Your task to perform on an android device: Show me the alarms in the clock app Image 0: 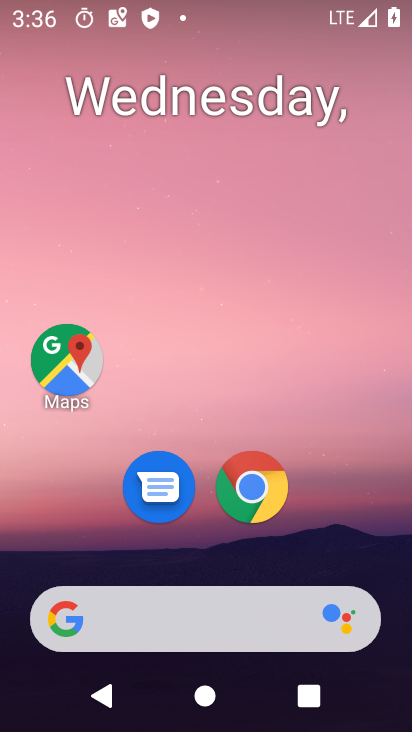
Step 0: drag from (279, 579) to (291, 133)
Your task to perform on an android device: Show me the alarms in the clock app Image 1: 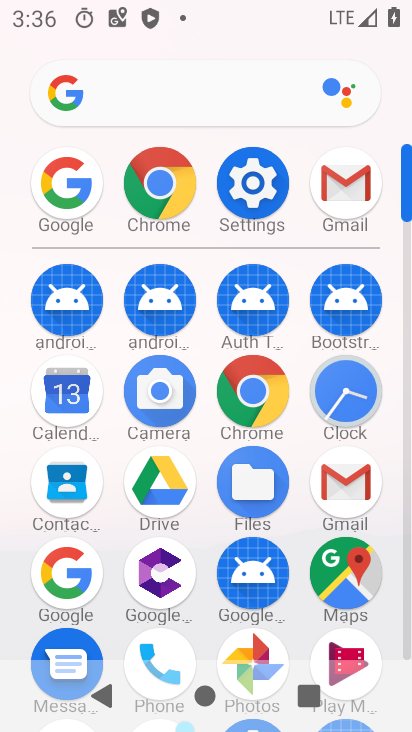
Step 1: click (351, 420)
Your task to perform on an android device: Show me the alarms in the clock app Image 2: 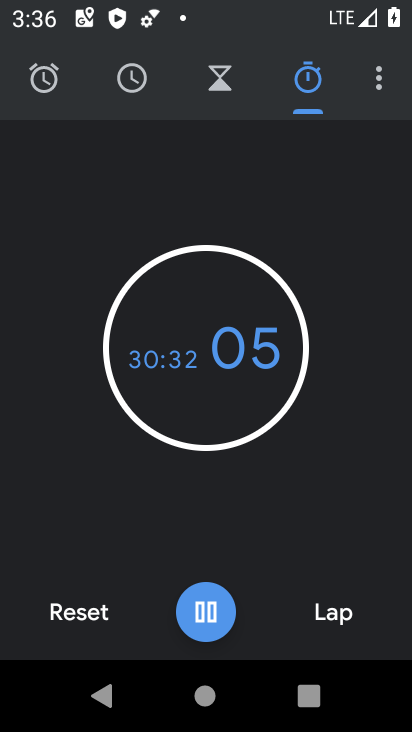
Step 2: click (54, 101)
Your task to perform on an android device: Show me the alarms in the clock app Image 3: 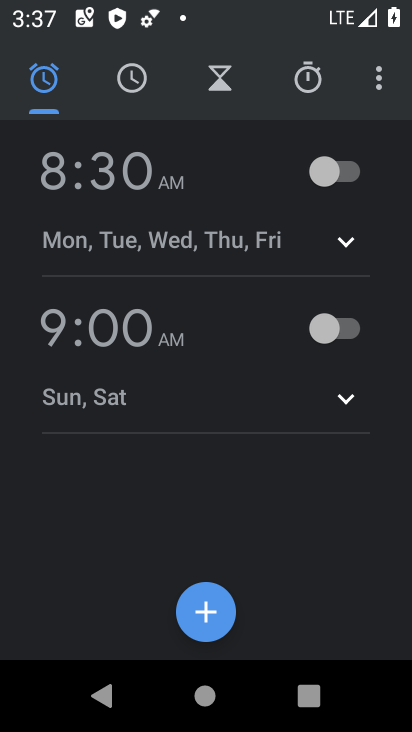
Step 3: task complete